Your task to perform on an android device: set an alarm Image 0: 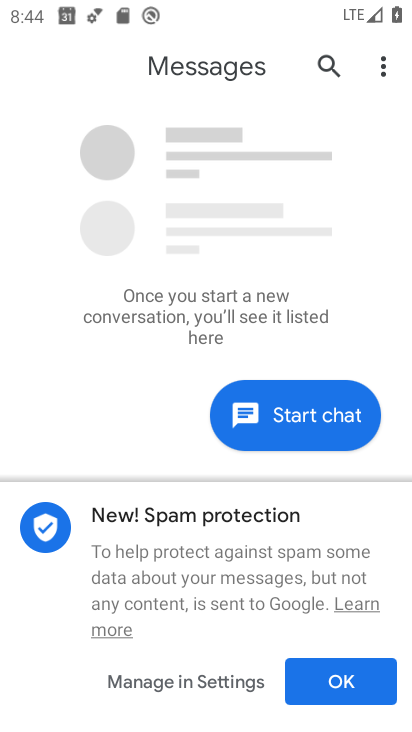
Step 0: press home button
Your task to perform on an android device: set an alarm Image 1: 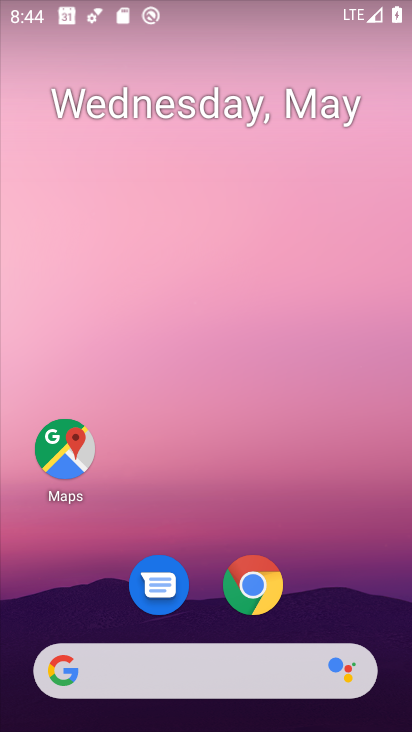
Step 1: drag from (300, 535) to (296, 95)
Your task to perform on an android device: set an alarm Image 2: 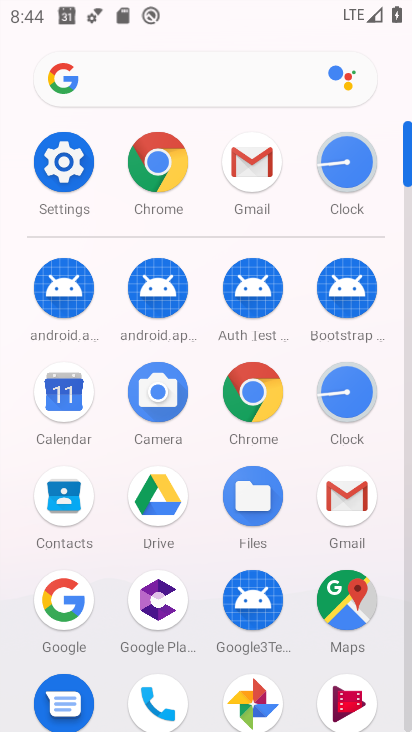
Step 2: click (341, 166)
Your task to perform on an android device: set an alarm Image 3: 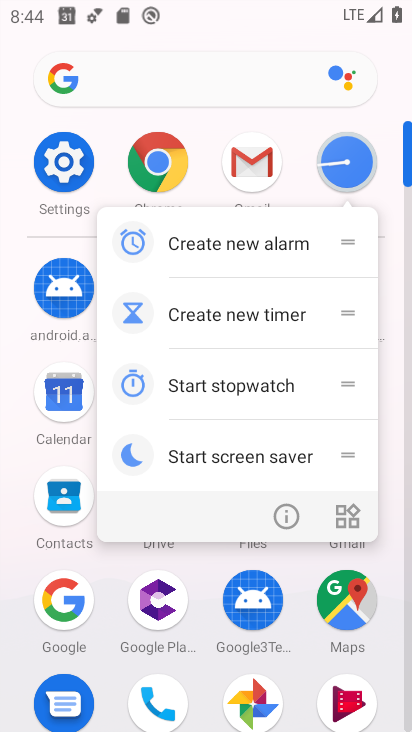
Step 3: click (340, 163)
Your task to perform on an android device: set an alarm Image 4: 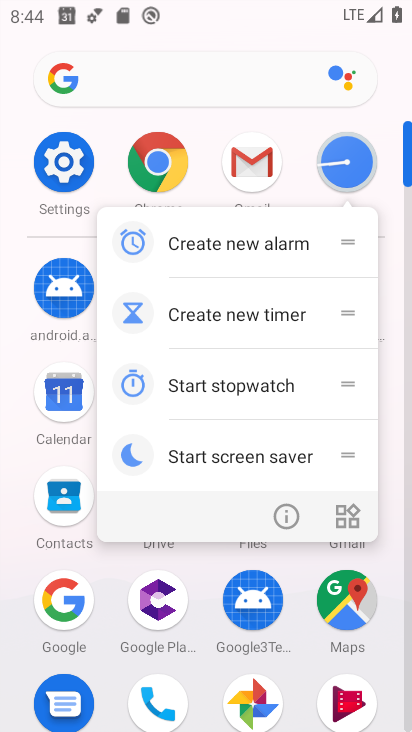
Step 4: click (359, 159)
Your task to perform on an android device: set an alarm Image 5: 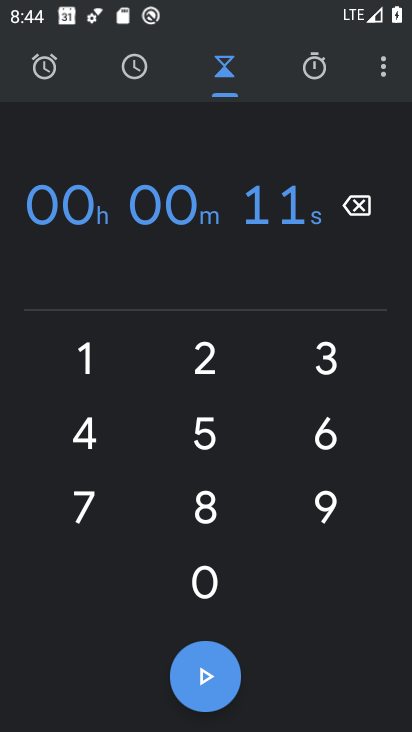
Step 5: click (32, 56)
Your task to perform on an android device: set an alarm Image 6: 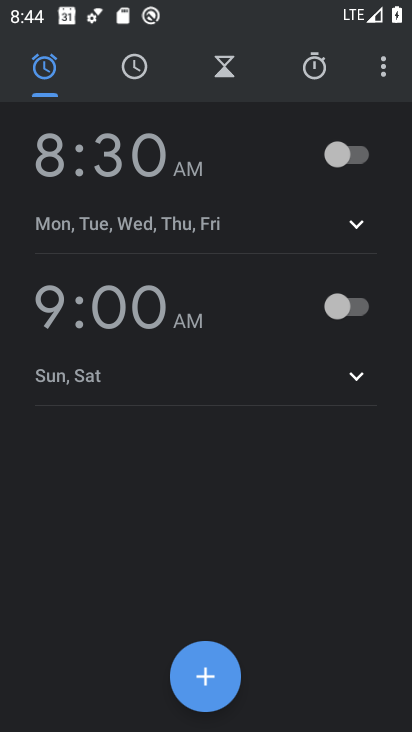
Step 6: click (214, 677)
Your task to perform on an android device: set an alarm Image 7: 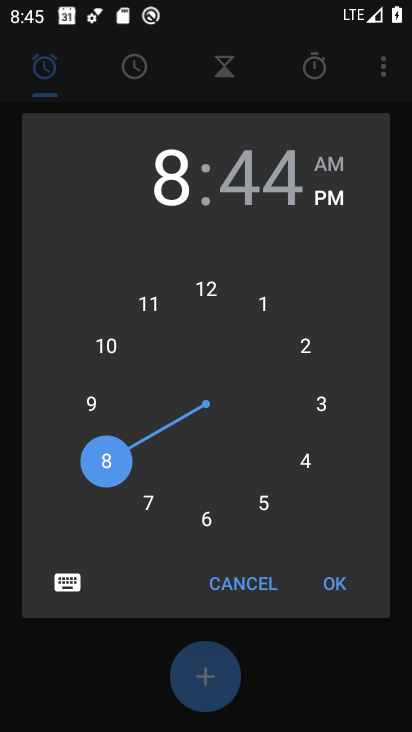
Step 7: click (245, 187)
Your task to perform on an android device: set an alarm Image 8: 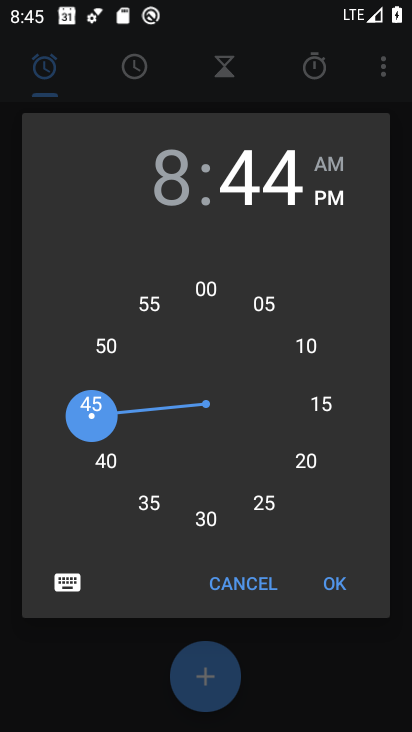
Step 8: click (200, 511)
Your task to perform on an android device: set an alarm Image 9: 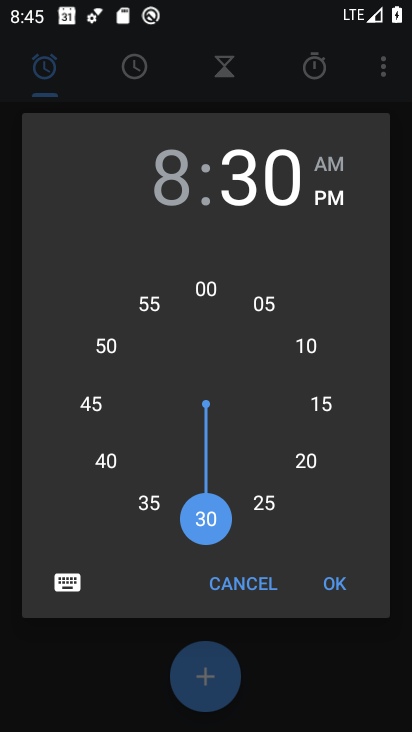
Step 9: click (338, 584)
Your task to perform on an android device: set an alarm Image 10: 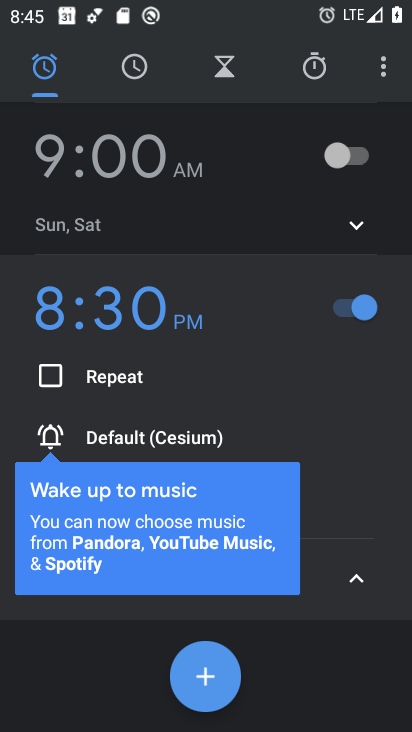
Step 10: task complete